Your task to perform on an android device: set the stopwatch Image 0: 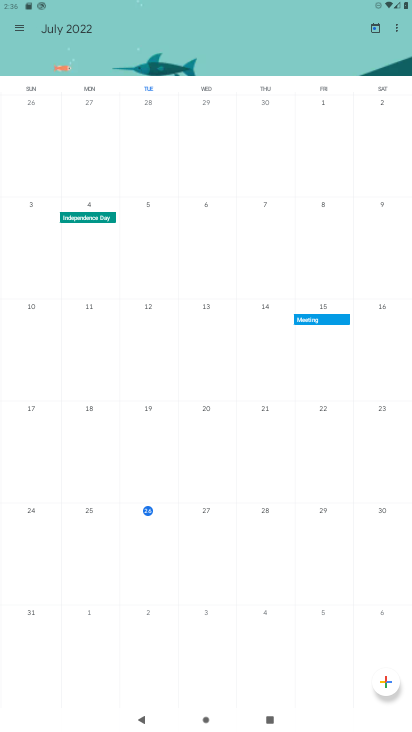
Step 0: press home button
Your task to perform on an android device: set the stopwatch Image 1: 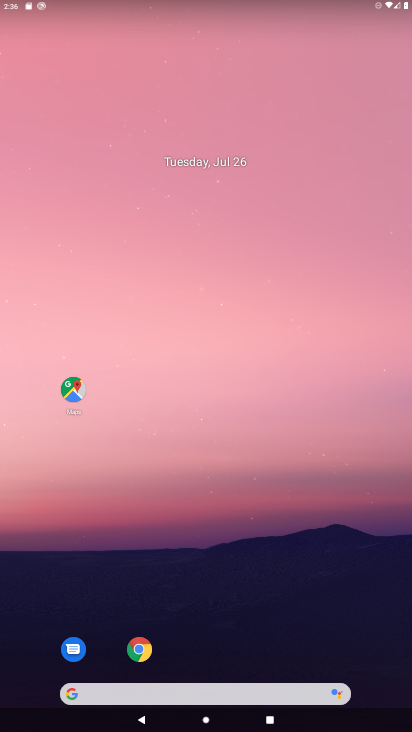
Step 1: drag from (227, 670) to (199, 238)
Your task to perform on an android device: set the stopwatch Image 2: 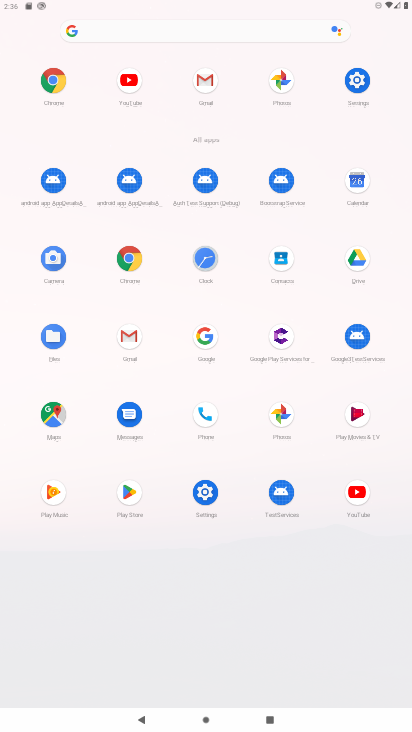
Step 2: click (203, 255)
Your task to perform on an android device: set the stopwatch Image 3: 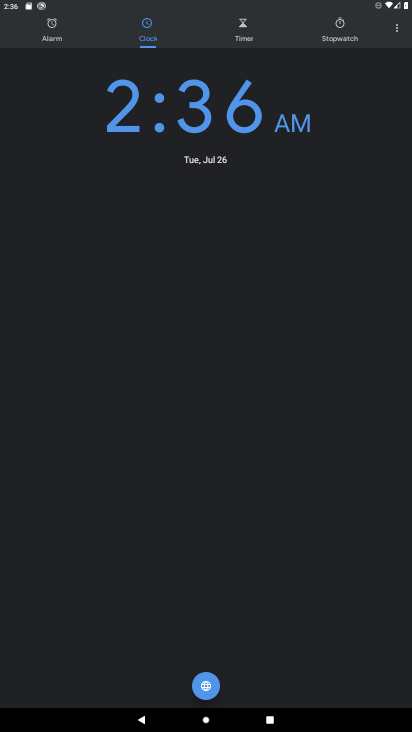
Step 3: click (341, 26)
Your task to perform on an android device: set the stopwatch Image 4: 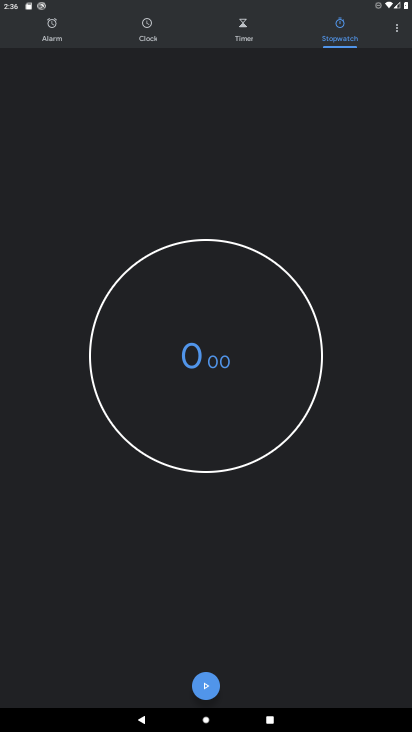
Step 4: task complete